Your task to perform on an android device: turn on airplane mode Image 0: 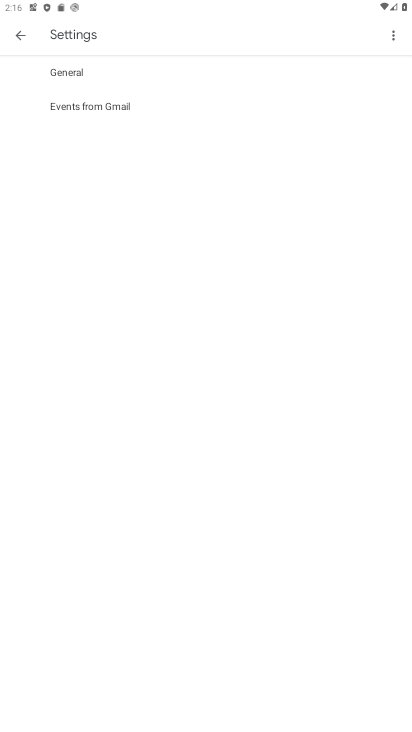
Step 0: press home button
Your task to perform on an android device: turn on airplane mode Image 1: 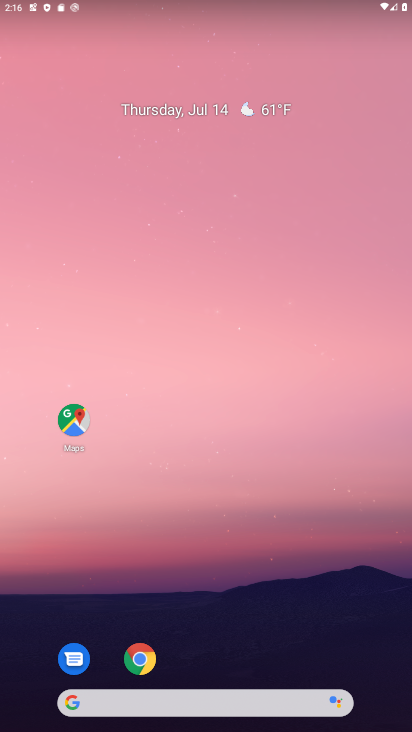
Step 1: drag from (294, 565) to (218, 125)
Your task to perform on an android device: turn on airplane mode Image 2: 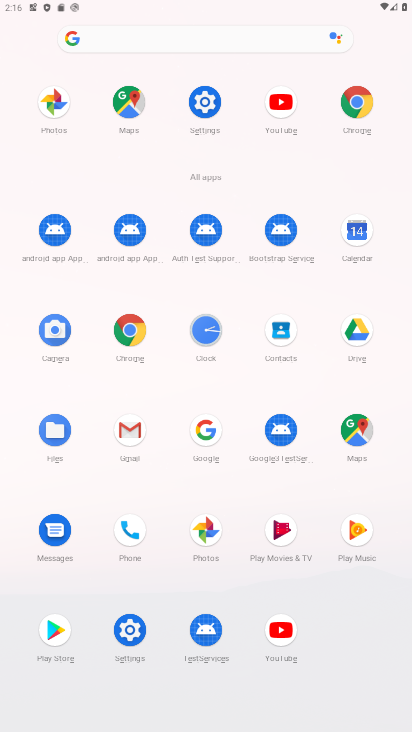
Step 2: click (207, 96)
Your task to perform on an android device: turn on airplane mode Image 3: 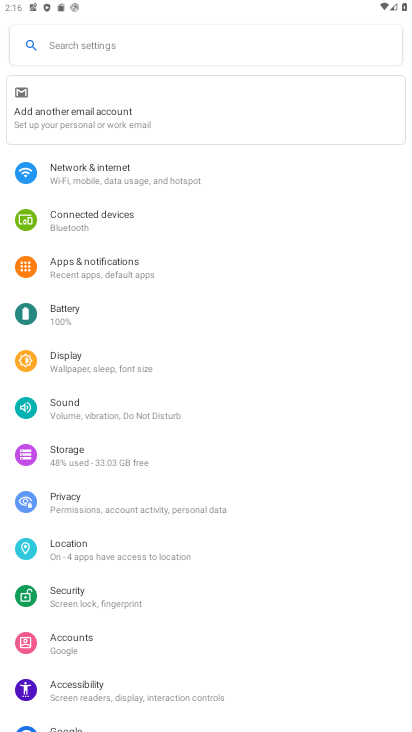
Step 3: click (184, 178)
Your task to perform on an android device: turn on airplane mode Image 4: 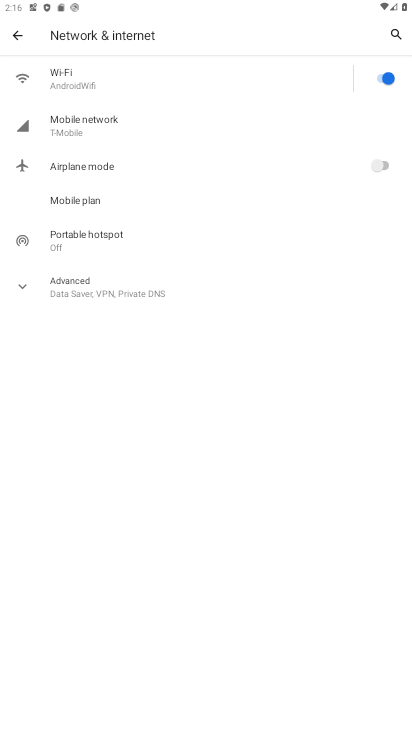
Step 4: click (380, 176)
Your task to perform on an android device: turn on airplane mode Image 5: 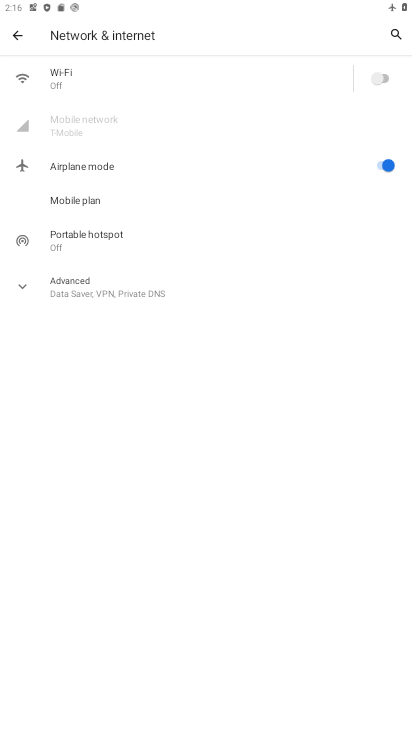
Step 5: task complete